Your task to perform on an android device: Open Google Maps and go to "Timeline" Image 0: 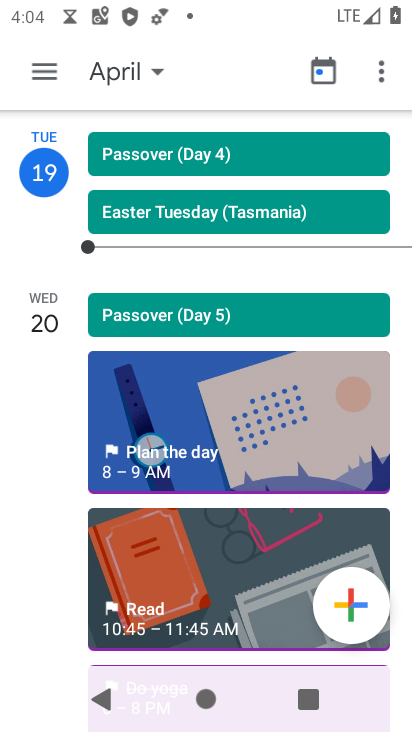
Step 0: press home button
Your task to perform on an android device: Open Google Maps and go to "Timeline" Image 1: 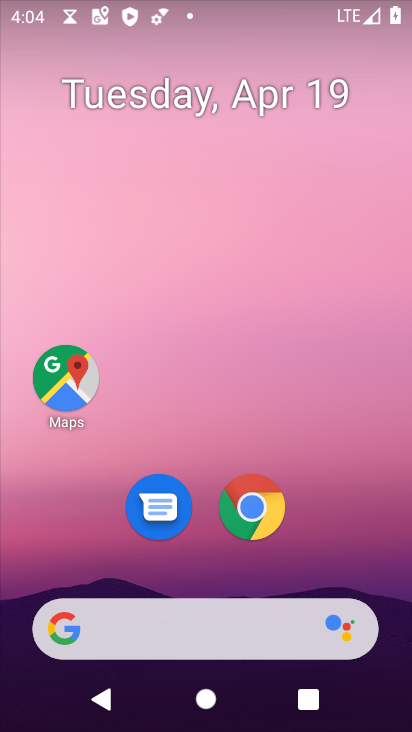
Step 1: drag from (247, 592) to (129, 80)
Your task to perform on an android device: Open Google Maps and go to "Timeline" Image 2: 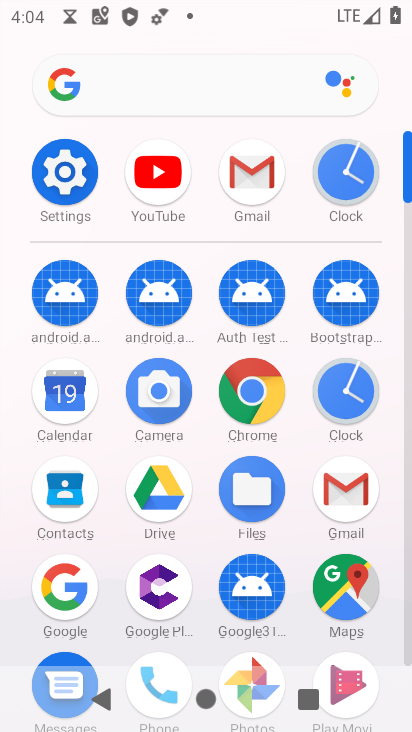
Step 2: click (359, 585)
Your task to perform on an android device: Open Google Maps and go to "Timeline" Image 3: 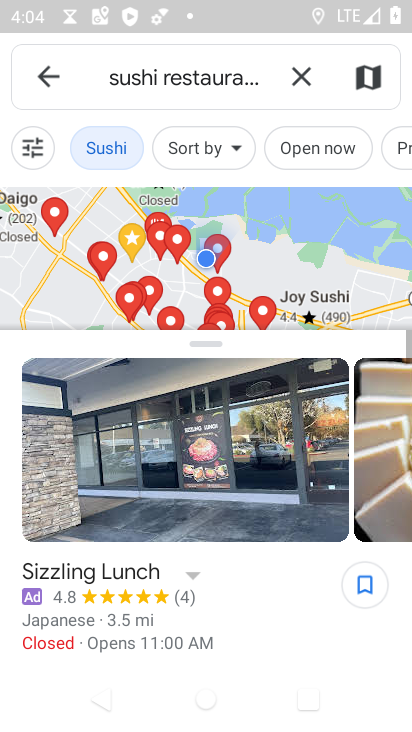
Step 3: click (39, 74)
Your task to perform on an android device: Open Google Maps and go to "Timeline" Image 4: 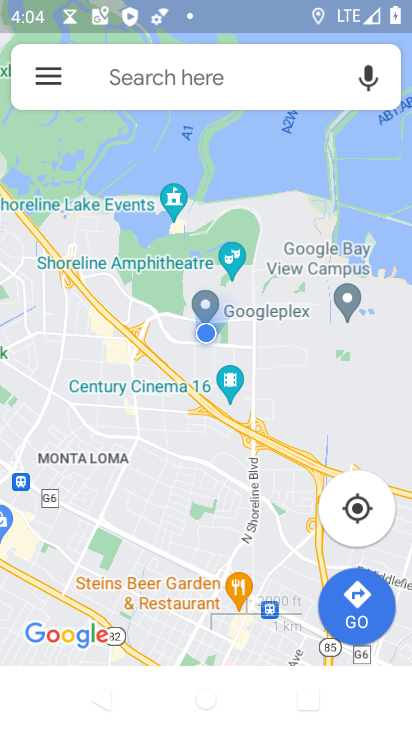
Step 4: click (39, 74)
Your task to perform on an android device: Open Google Maps and go to "Timeline" Image 5: 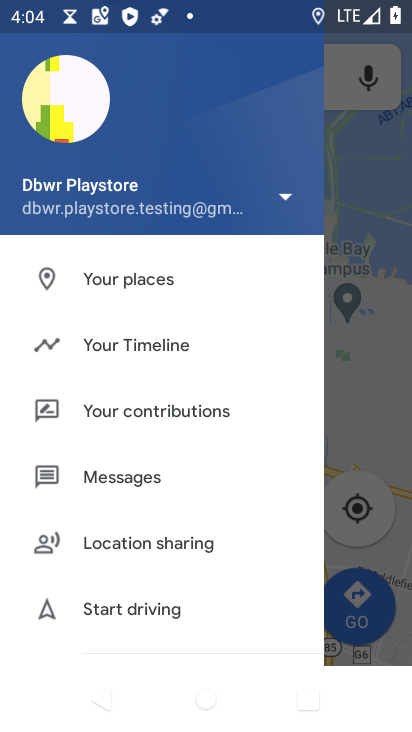
Step 5: click (110, 349)
Your task to perform on an android device: Open Google Maps and go to "Timeline" Image 6: 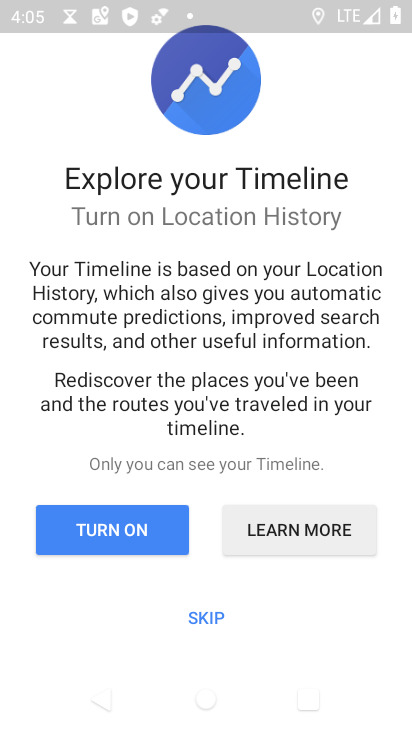
Step 6: click (200, 621)
Your task to perform on an android device: Open Google Maps and go to "Timeline" Image 7: 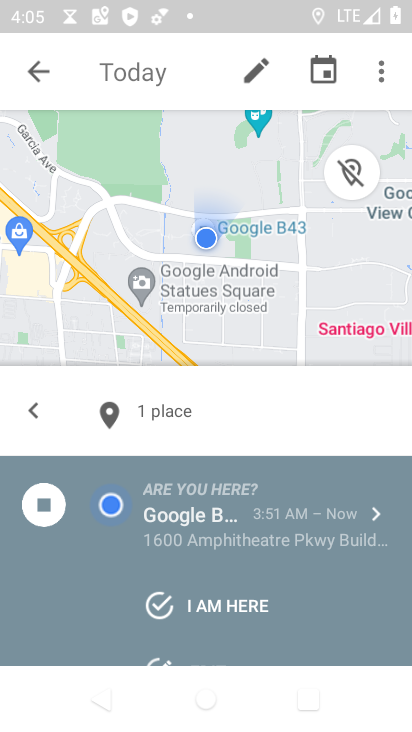
Step 7: task complete